Your task to perform on an android device: turn on data saver in the chrome app Image 0: 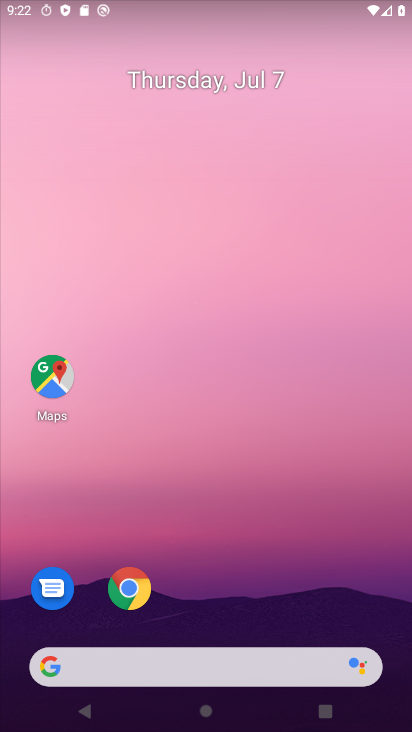
Step 0: drag from (223, 726) to (203, 339)
Your task to perform on an android device: turn on data saver in the chrome app Image 1: 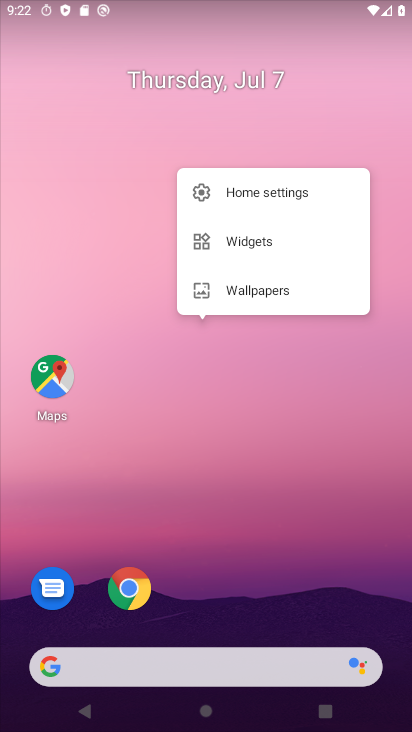
Step 1: drag from (223, 605) to (73, 221)
Your task to perform on an android device: turn on data saver in the chrome app Image 2: 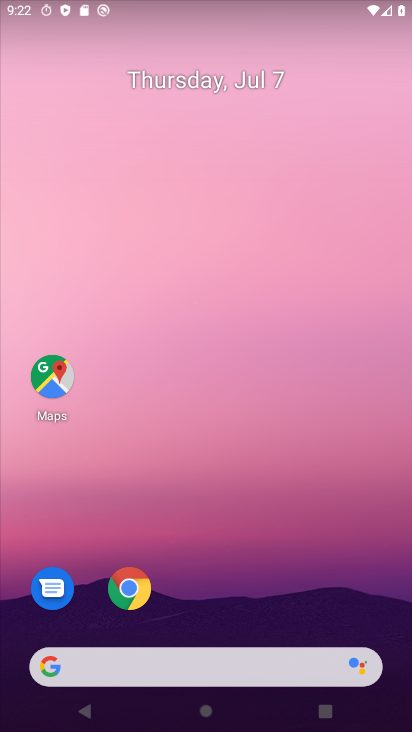
Step 2: click (72, 220)
Your task to perform on an android device: turn on data saver in the chrome app Image 3: 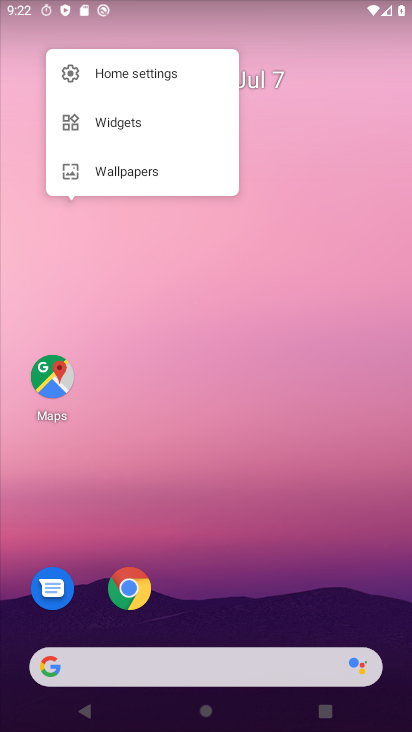
Step 3: drag from (269, 649) to (160, 108)
Your task to perform on an android device: turn on data saver in the chrome app Image 4: 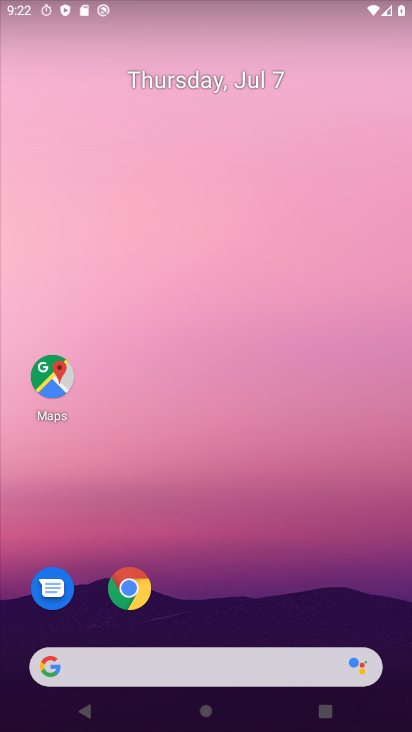
Step 4: drag from (192, 600) to (128, 201)
Your task to perform on an android device: turn on data saver in the chrome app Image 5: 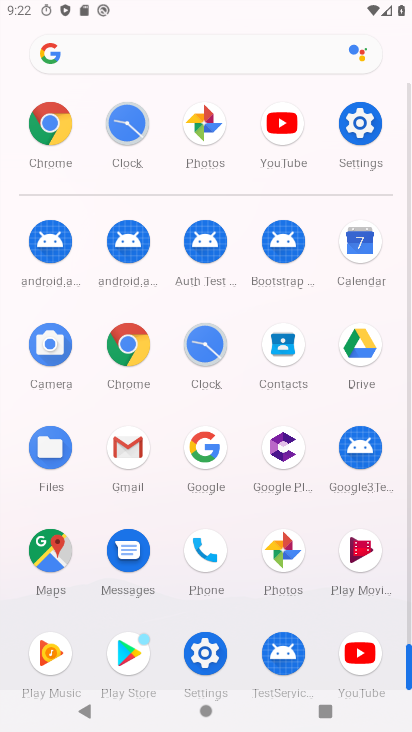
Step 5: click (49, 124)
Your task to perform on an android device: turn on data saver in the chrome app Image 6: 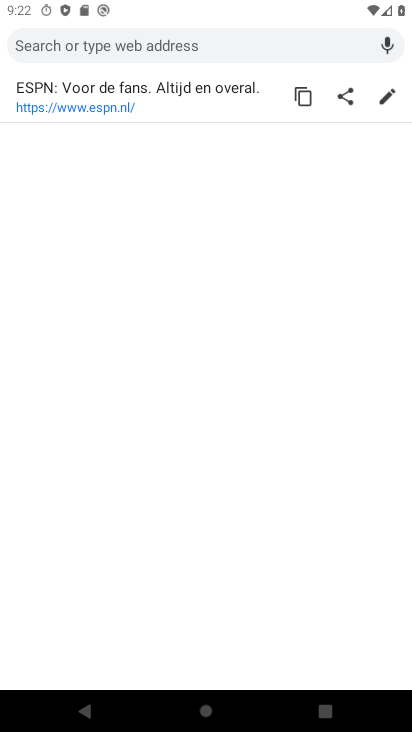
Step 6: click (348, 36)
Your task to perform on an android device: turn on data saver in the chrome app Image 7: 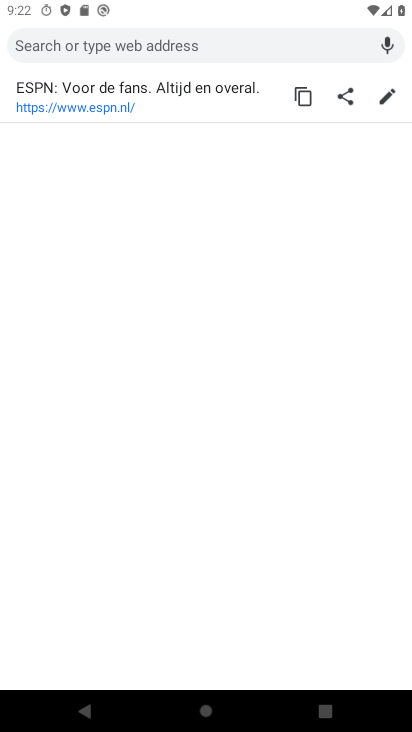
Step 7: click (346, 34)
Your task to perform on an android device: turn on data saver in the chrome app Image 8: 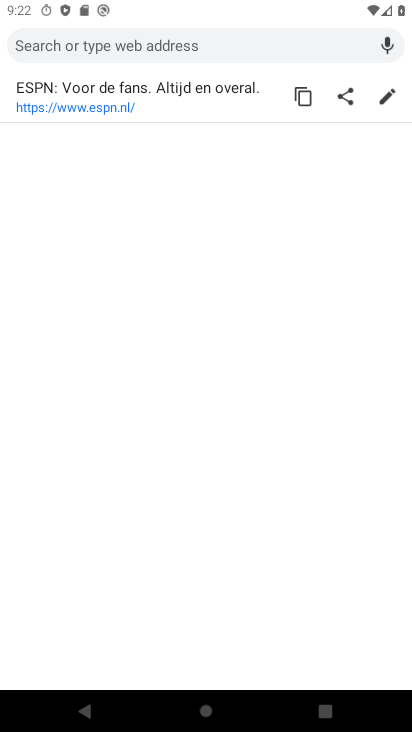
Step 8: press back button
Your task to perform on an android device: turn on data saver in the chrome app Image 9: 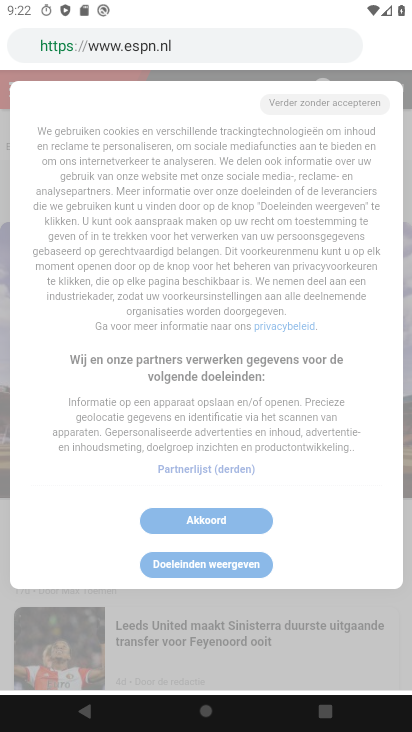
Step 9: press back button
Your task to perform on an android device: turn on data saver in the chrome app Image 10: 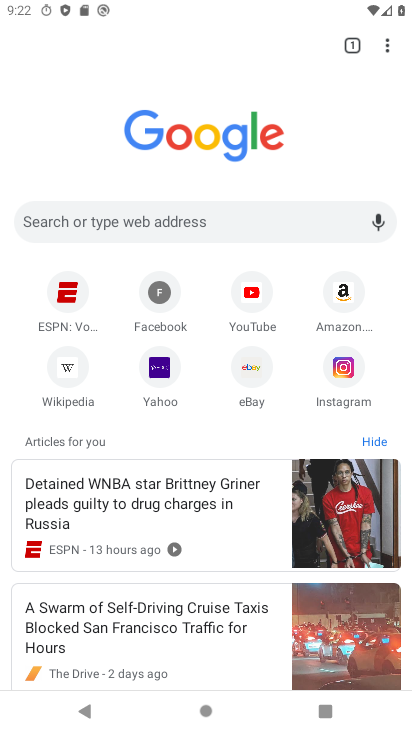
Step 10: drag from (391, 45) to (219, 374)
Your task to perform on an android device: turn on data saver in the chrome app Image 11: 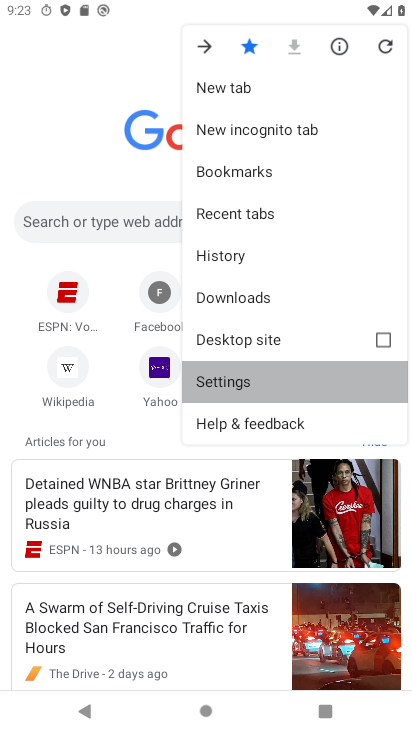
Step 11: click (216, 374)
Your task to perform on an android device: turn on data saver in the chrome app Image 12: 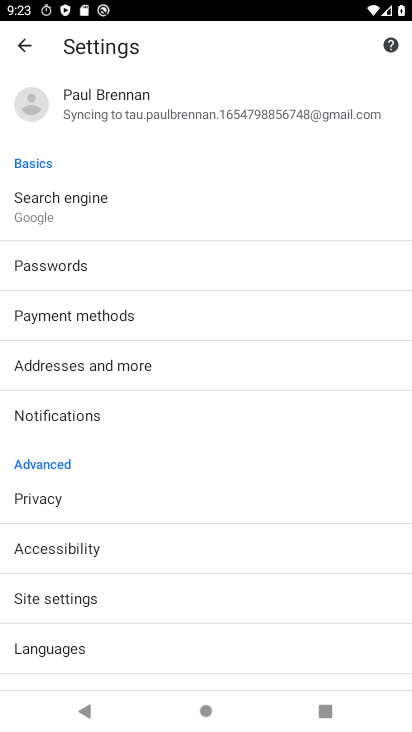
Step 12: drag from (68, 596) to (55, 276)
Your task to perform on an android device: turn on data saver in the chrome app Image 13: 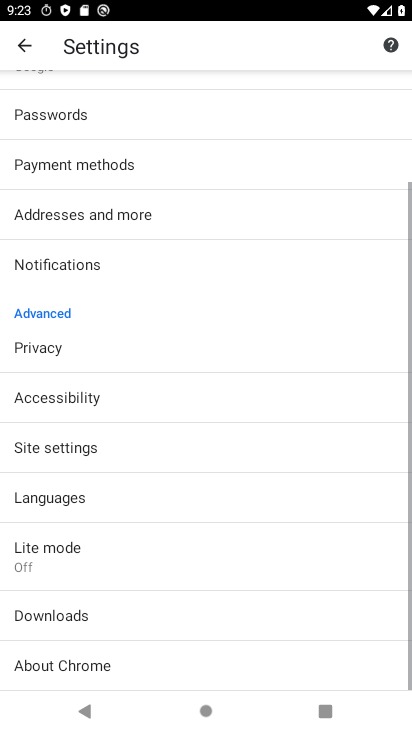
Step 13: click (39, 563)
Your task to perform on an android device: turn on data saver in the chrome app Image 14: 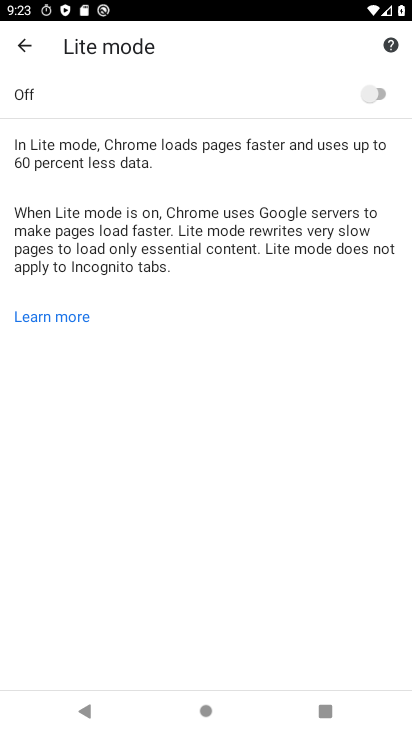
Step 14: click (360, 90)
Your task to perform on an android device: turn on data saver in the chrome app Image 15: 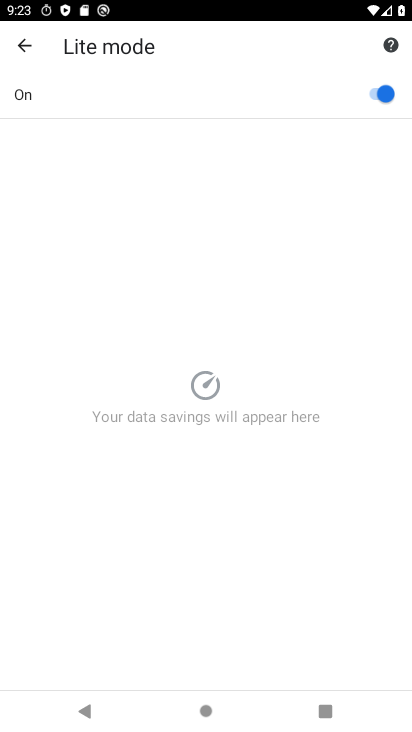
Step 15: task complete